Your task to perform on an android device: Go to accessibility settings Image 0: 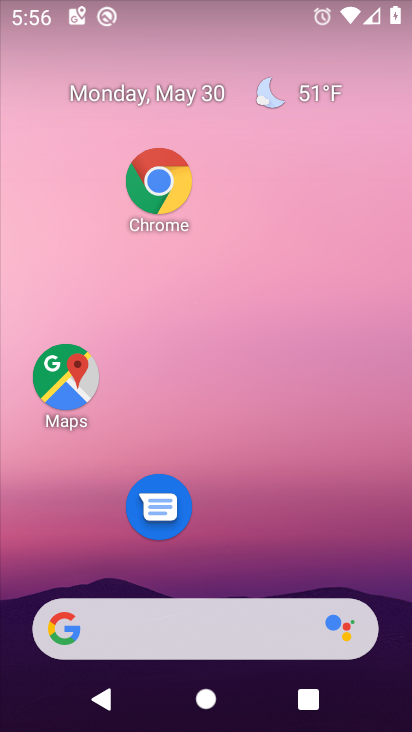
Step 0: press home button
Your task to perform on an android device: Go to accessibility settings Image 1: 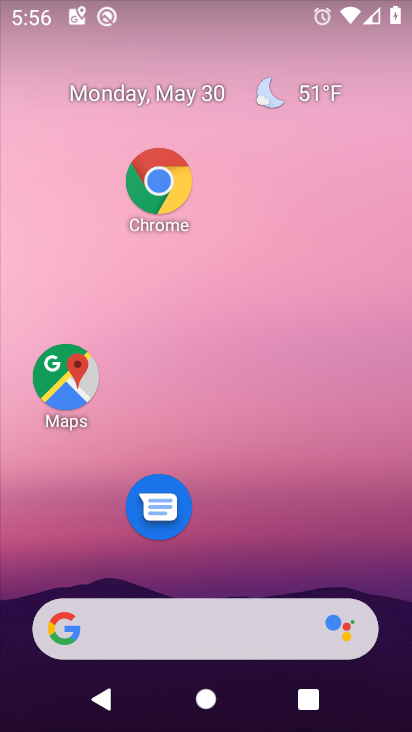
Step 1: drag from (292, 550) to (269, 106)
Your task to perform on an android device: Go to accessibility settings Image 2: 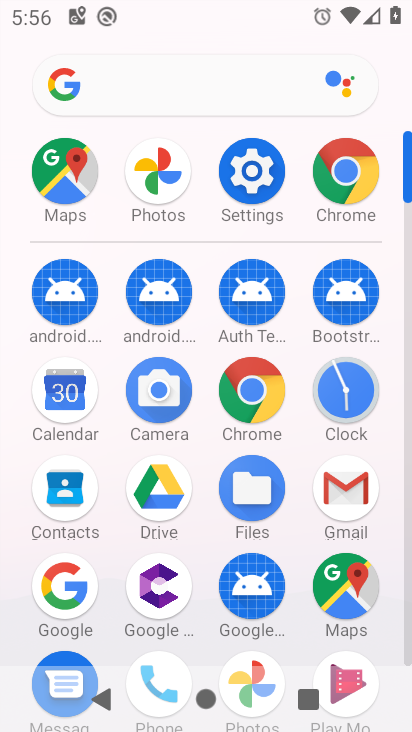
Step 2: click (408, 587)
Your task to perform on an android device: Go to accessibility settings Image 3: 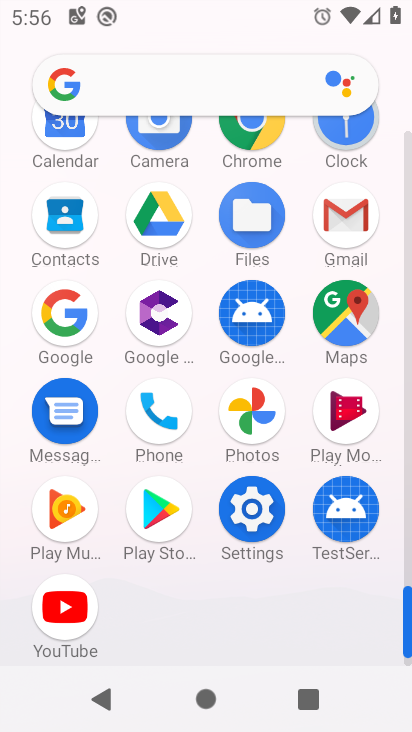
Step 3: click (258, 515)
Your task to perform on an android device: Go to accessibility settings Image 4: 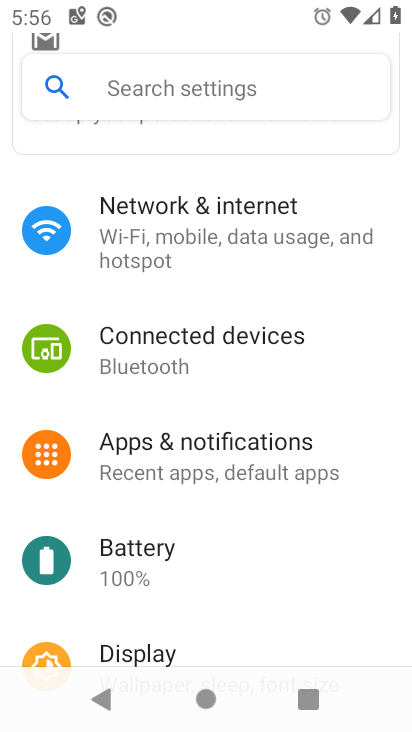
Step 4: drag from (260, 574) to (288, 0)
Your task to perform on an android device: Go to accessibility settings Image 5: 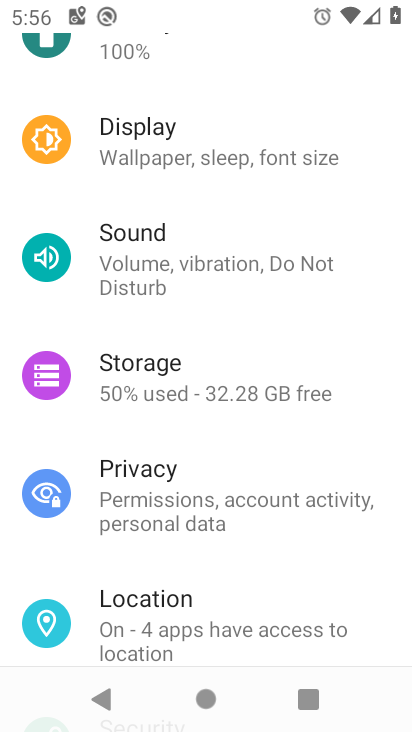
Step 5: drag from (228, 559) to (270, 127)
Your task to perform on an android device: Go to accessibility settings Image 6: 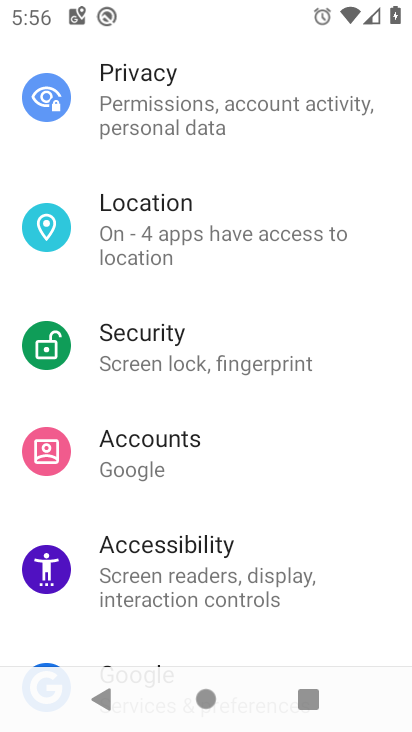
Step 6: drag from (250, 585) to (313, 246)
Your task to perform on an android device: Go to accessibility settings Image 7: 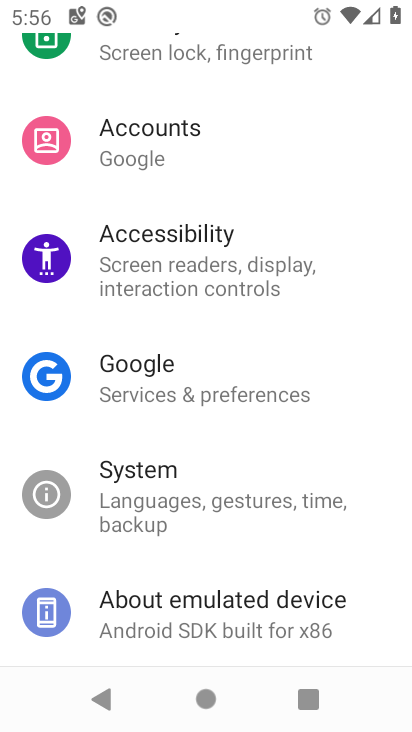
Step 7: drag from (224, 551) to (282, 292)
Your task to perform on an android device: Go to accessibility settings Image 8: 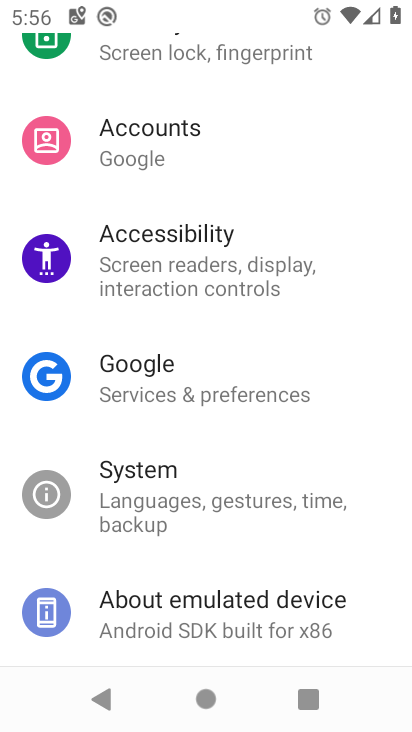
Step 8: click (238, 260)
Your task to perform on an android device: Go to accessibility settings Image 9: 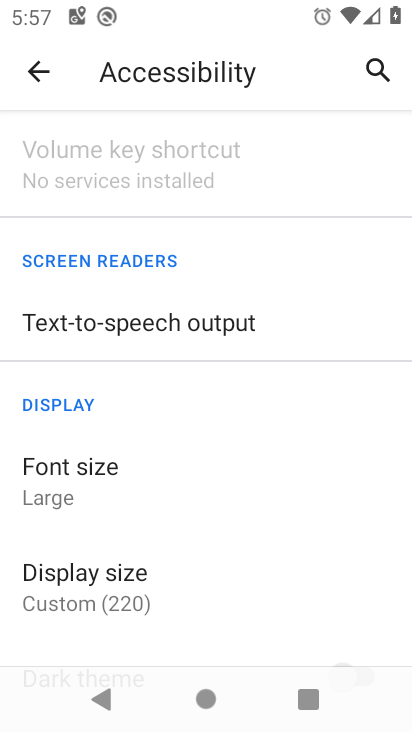
Step 9: task complete